Your task to perform on an android device: delete browsing data in the chrome app Image 0: 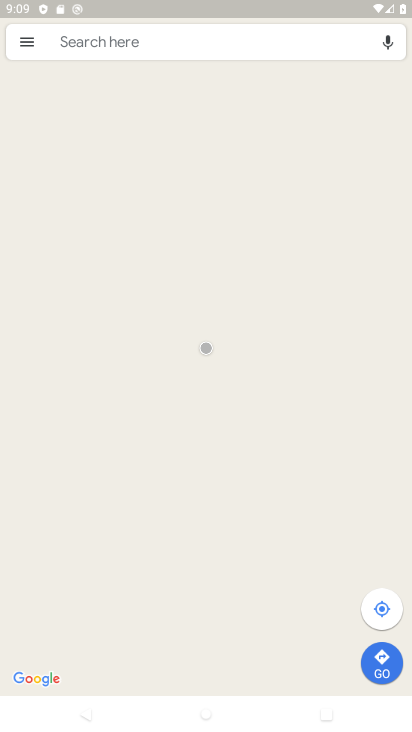
Step 0: press home button
Your task to perform on an android device: delete browsing data in the chrome app Image 1: 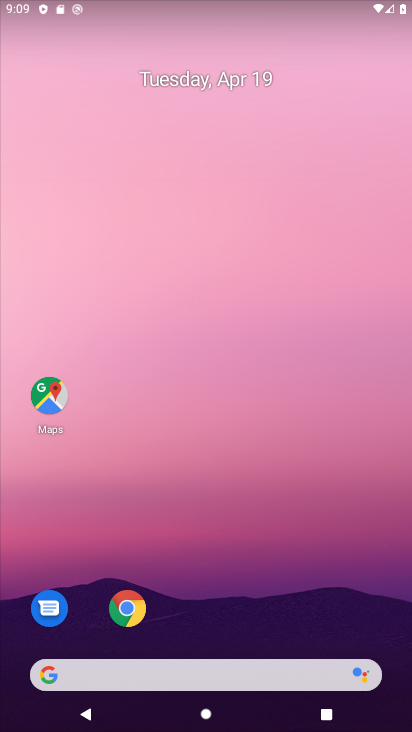
Step 1: click (127, 613)
Your task to perform on an android device: delete browsing data in the chrome app Image 2: 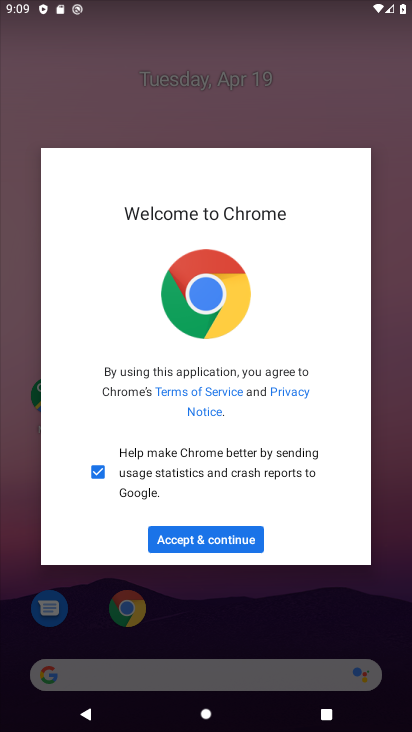
Step 2: click (202, 538)
Your task to perform on an android device: delete browsing data in the chrome app Image 3: 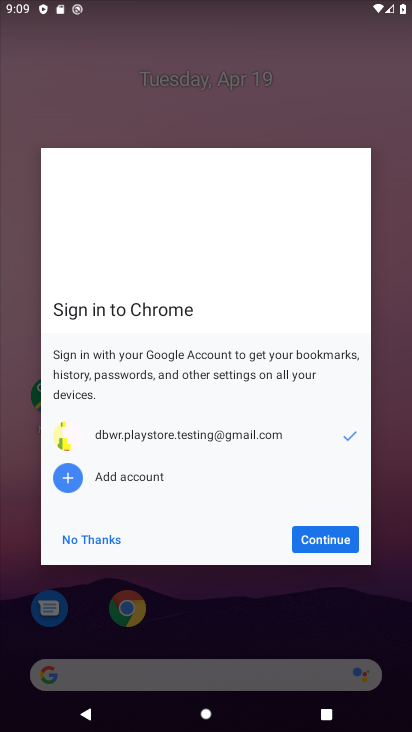
Step 3: click (321, 533)
Your task to perform on an android device: delete browsing data in the chrome app Image 4: 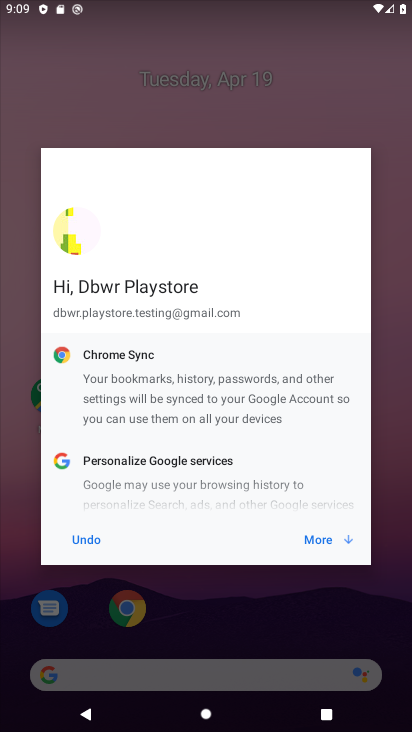
Step 4: click (321, 533)
Your task to perform on an android device: delete browsing data in the chrome app Image 5: 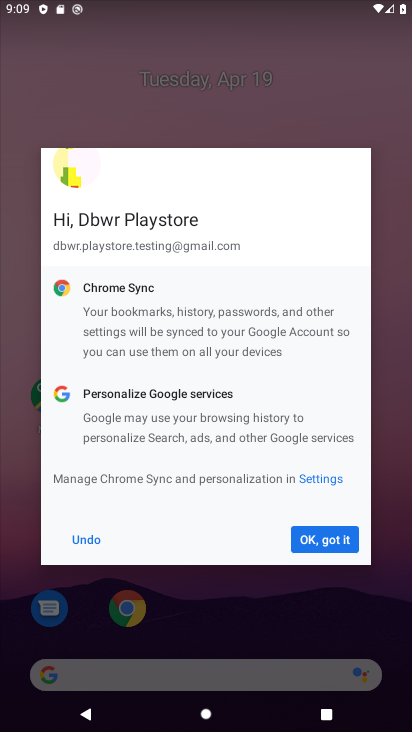
Step 5: click (321, 533)
Your task to perform on an android device: delete browsing data in the chrome app Image 6: 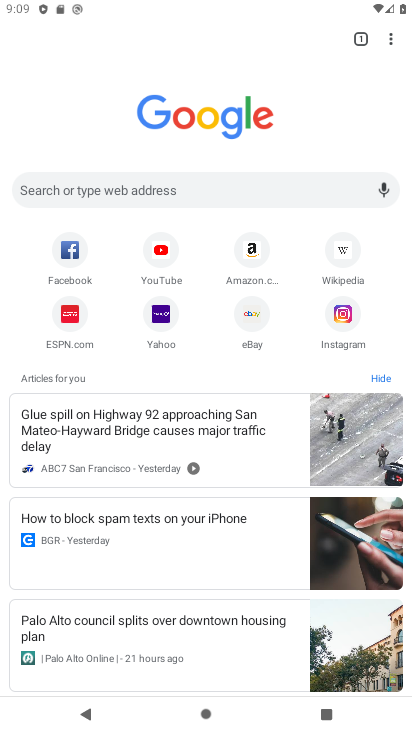
Step 6: click (389, 41)
Your task to perform on an android device: delete browsing data in the chrome app Image 7: 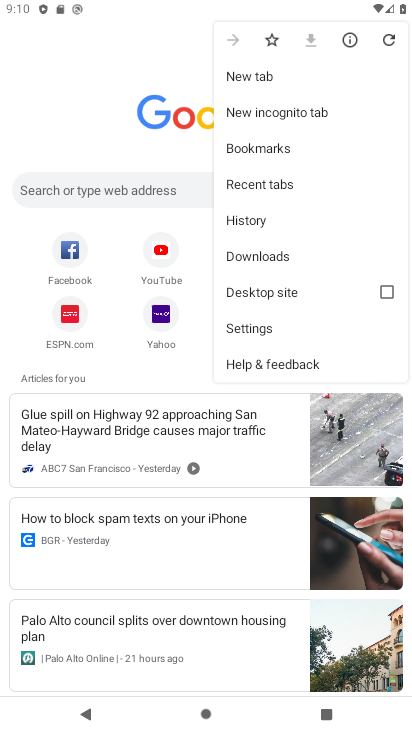
Step 7: click (244, 217)
Your task to perform on an android device: delete browsing data in the chrome app Image 8: 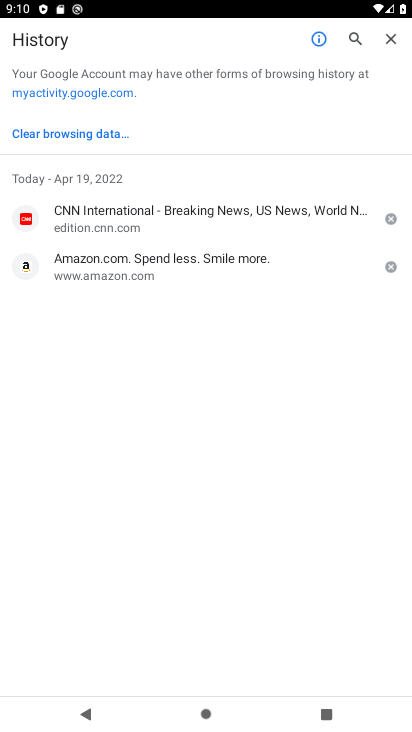
Step 8: click (48, 136)
Your task to perform on an android device: delete browsing data in the chrome app Image 9: 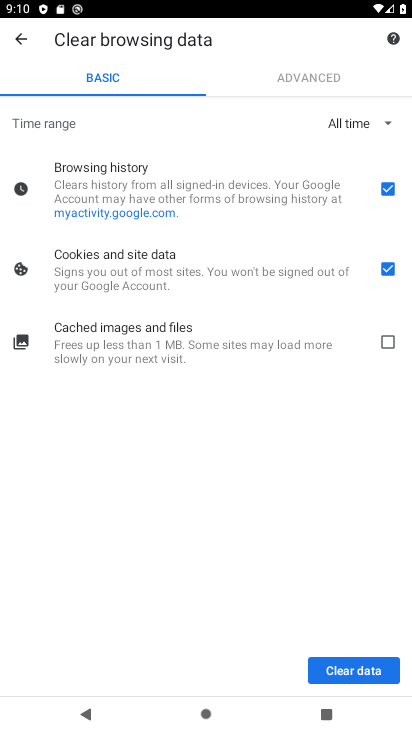
Step 9: click (386, 268)
Your task to perform on an android device: delete browsing data in the chrome app Image 10: 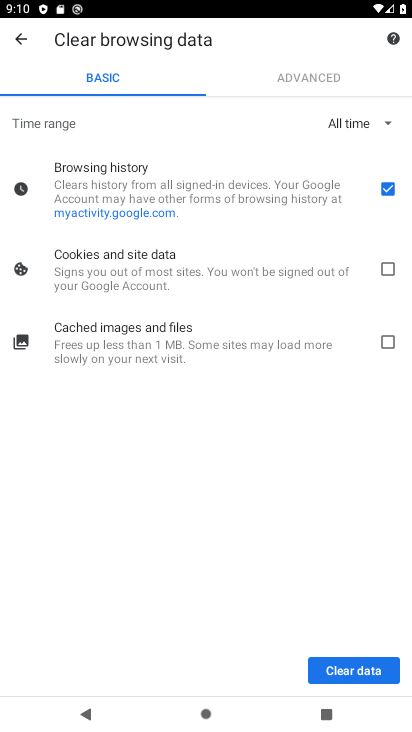
Step 10: click (354, 669)
Your task to perform on an android device: delete browsing data in the chrome app Image 11: 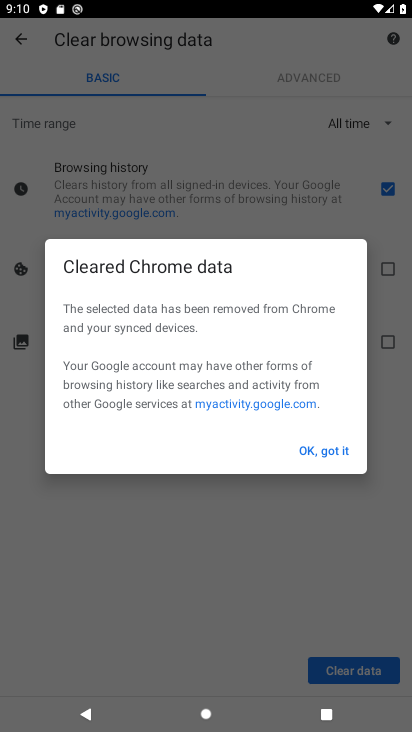
Step 11: click (320, 453)
Your task to perform on an android device: delete browsing data in the chrome app Image 12: 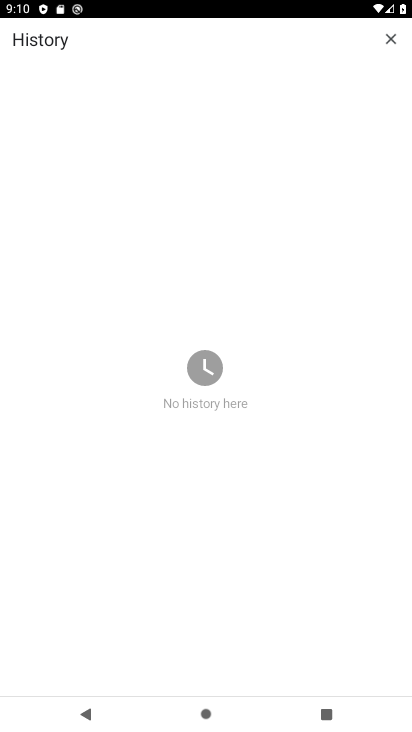
Step 12: task complete